Your task to perform on an android device: Clear the cart on bestbuy. Image 0: 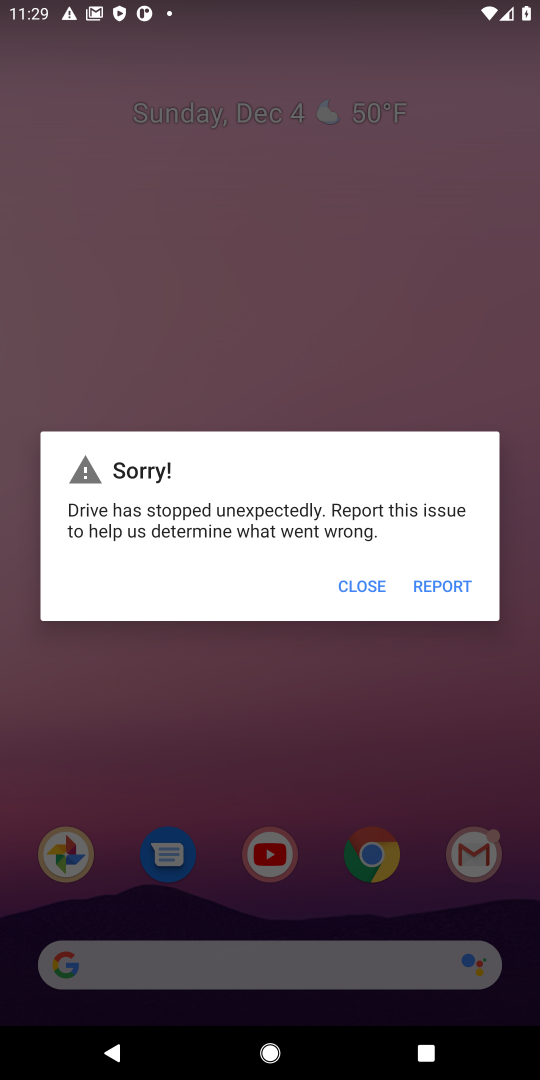
Step 0: press home button
Your task to perform on an android device: Clear the cart on bestbuy. Image 1: 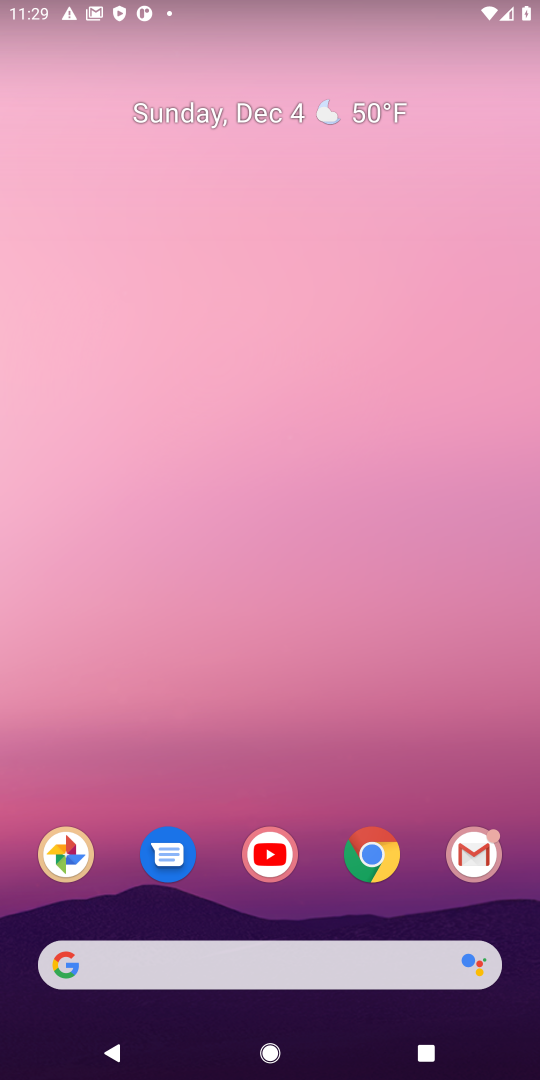
Step 1: click (301, 986)
Your task to perform on an android device: Clear the cart on bestbuy. Image 2: 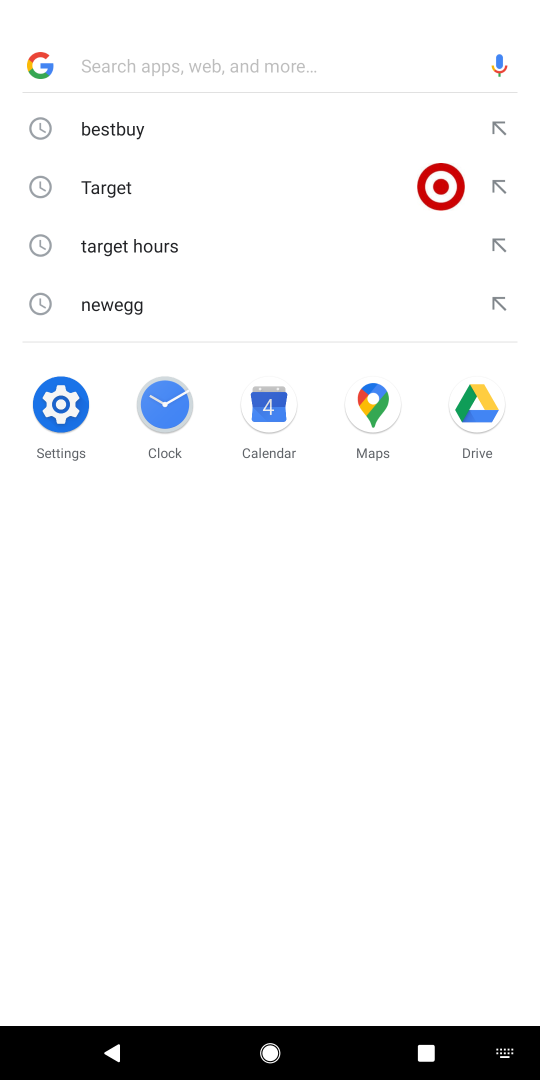
Step 2: type "bestbuy"
Your task to perform on an android device: Clear the cart on bestbuy. Image 3: 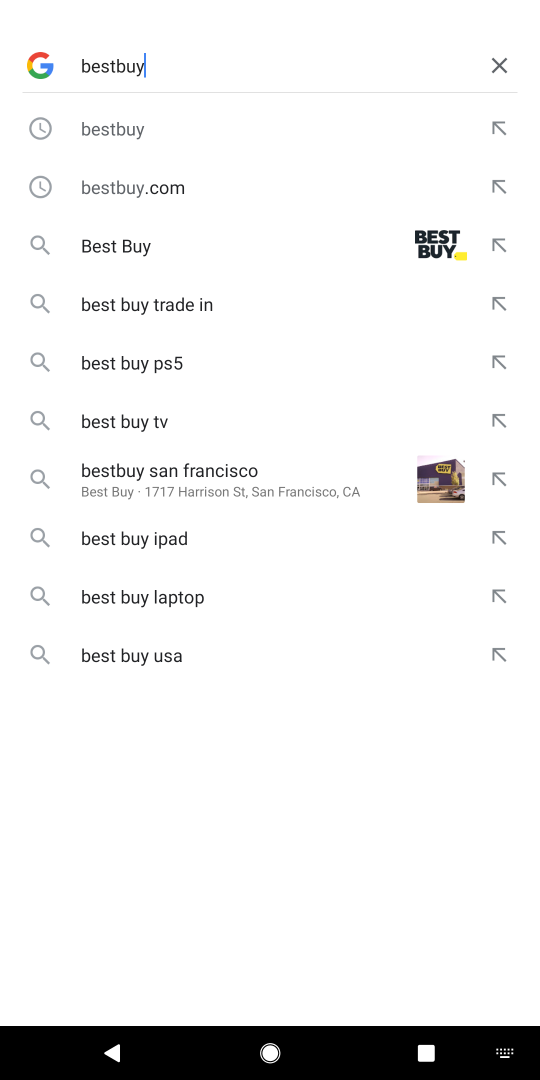
Step 3: click (335, 267)
Your task to perform on an android device: Clear the cart on bestbuy. Image 4: 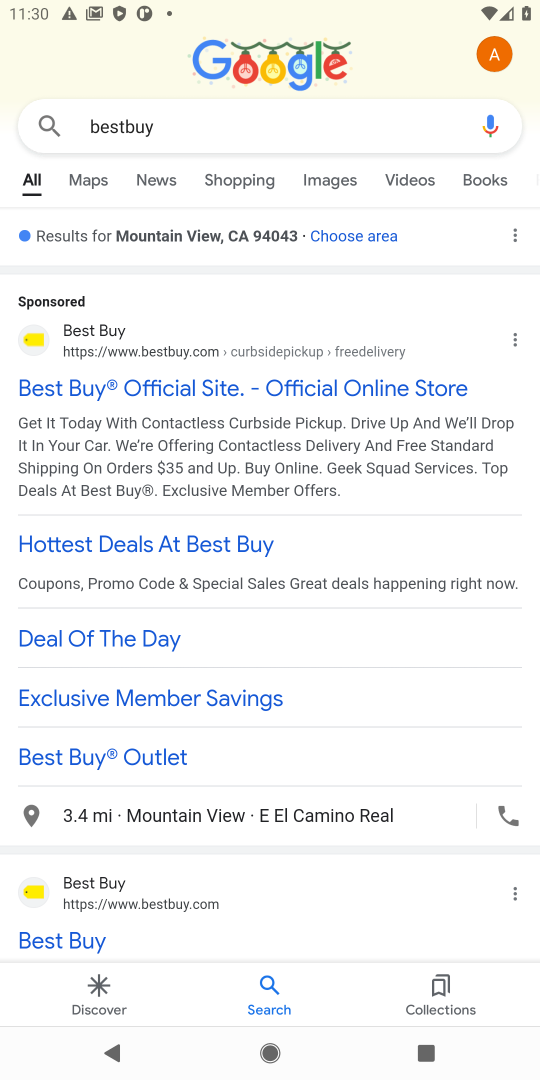
Step 4: click (110, 400)
Your task to perform on an android device: Clear the cart on bestbuy. Image 5: 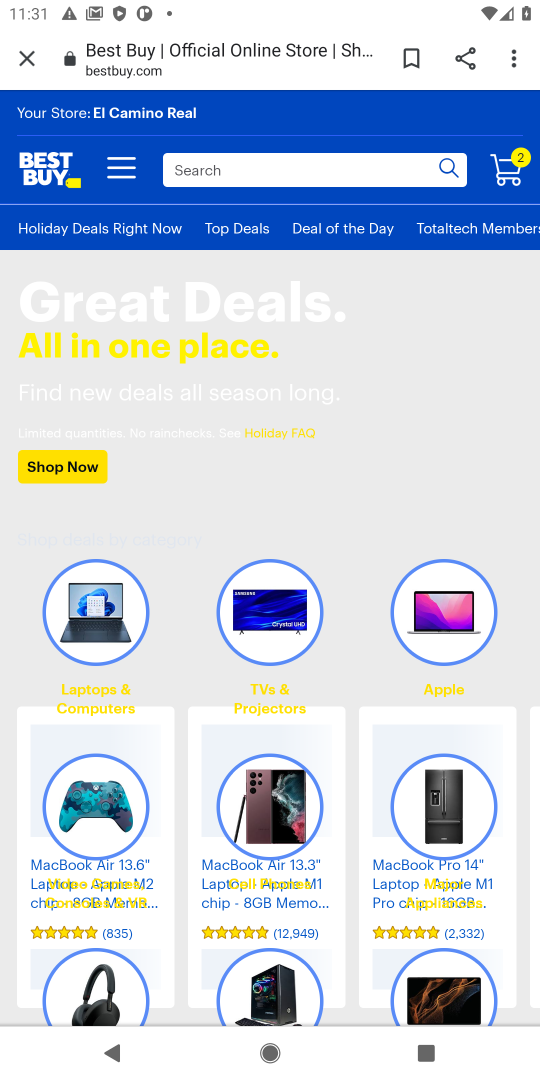
Step 5: task complete